Your task to perform on an android device: Go to Google Image 0: 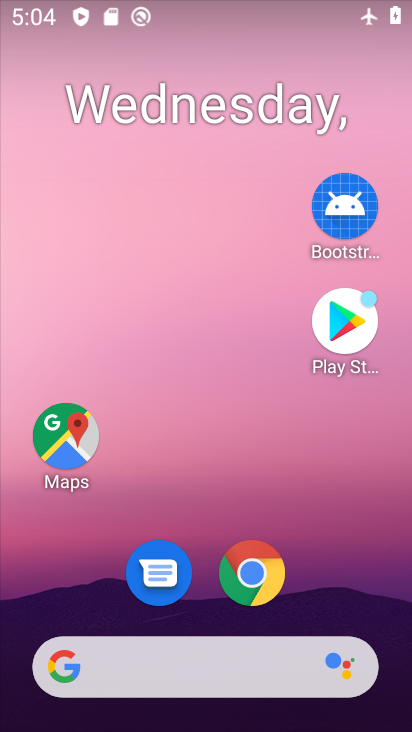
Step 0: click (279, 1)
Your task to perform on an android device: Go to Google Image 1: 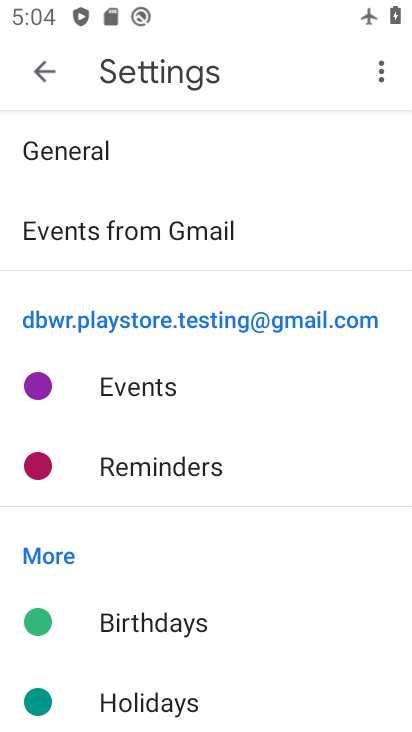
Step 1: press home button
Your task to perform on an android device: Go to Google Image 2: 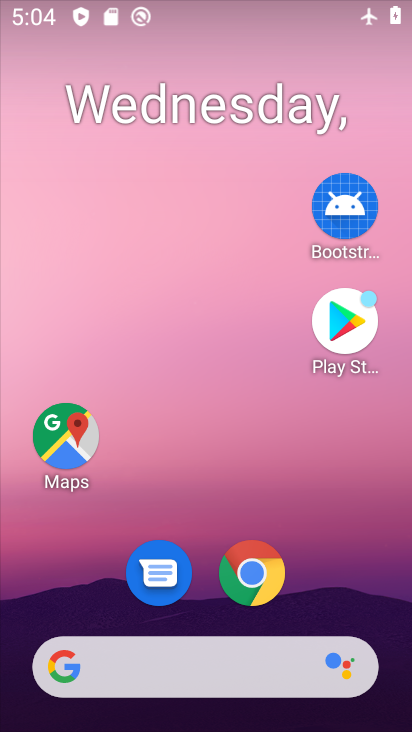
Step 2: drag from (367, 543) to (308, 25)
Your task to perform on an android device: Go to Google Image 3: 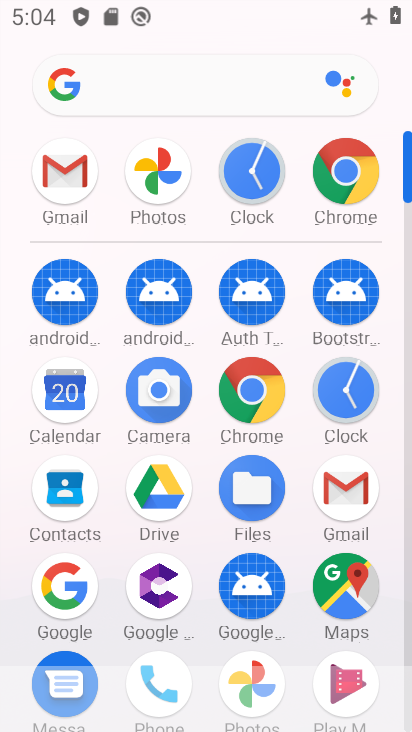
Step 3: click (80, 601)
Your task to perform on an android device: Go to Google Image 4: 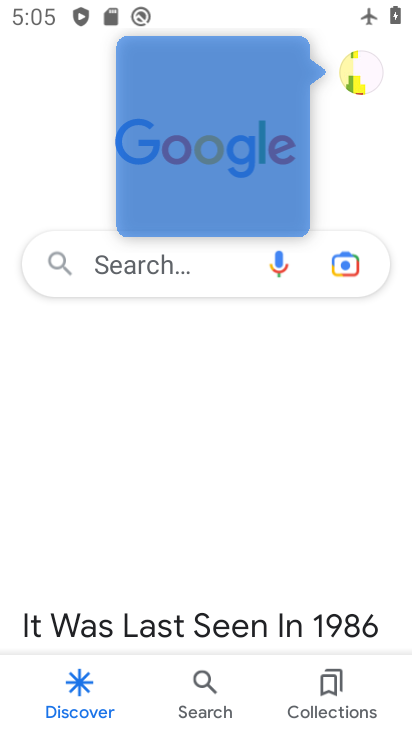
Step 4: task complete